Your task to perform on an android device: turn notification dots off Image 0: 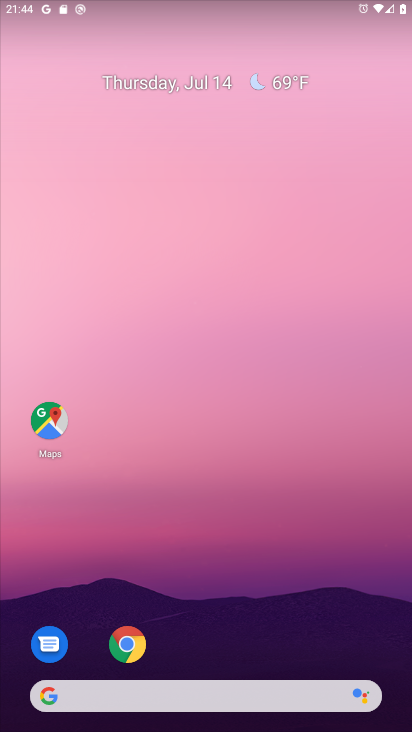
Step 0: drag from (188, 646) to (125, 110)
Your task to perform on an android device: turn notification dots off Image 1: 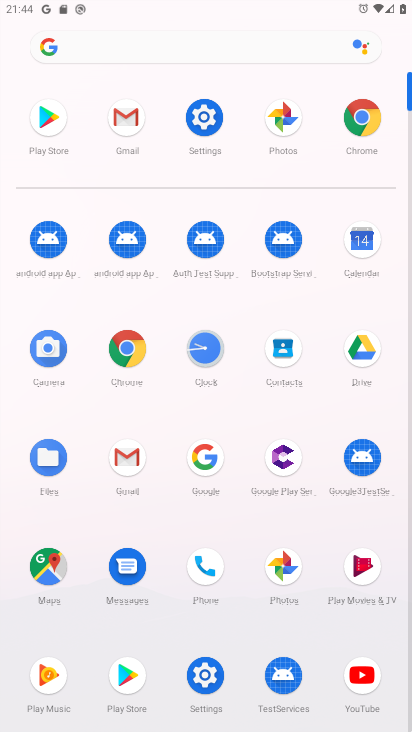
Step 1: click (205, 133)
Your task to perform on an android device: turn notification dots off Image 2: 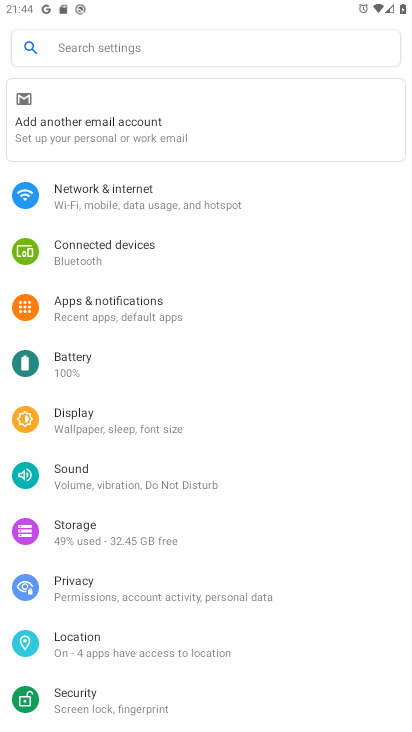
Step 2: click (166, 312)
Your task to perform on an android device: turn notification dots off Image 3: 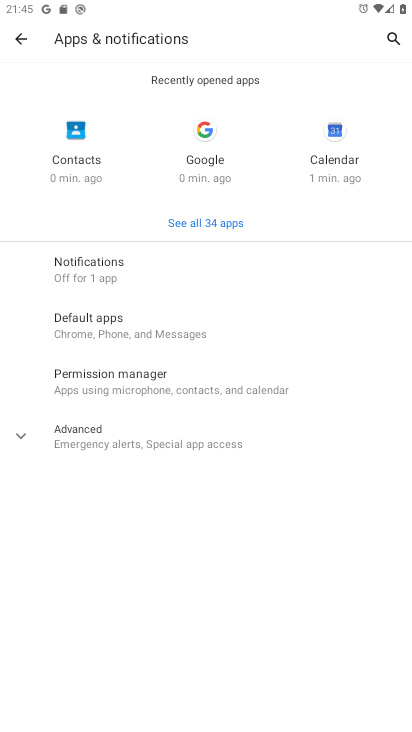
Step 3: click (198, 291)
Your task to perform on an android device: turn notification dots off Image 4: 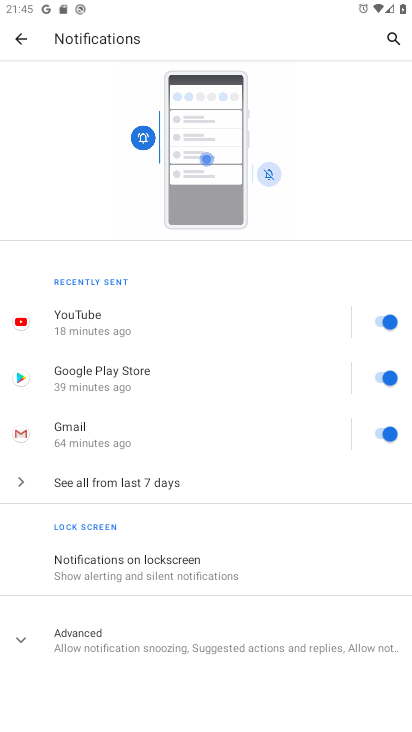
Step 4: click (127, 633)
Your task to perform on an android device: turn notification dots off Image 5: 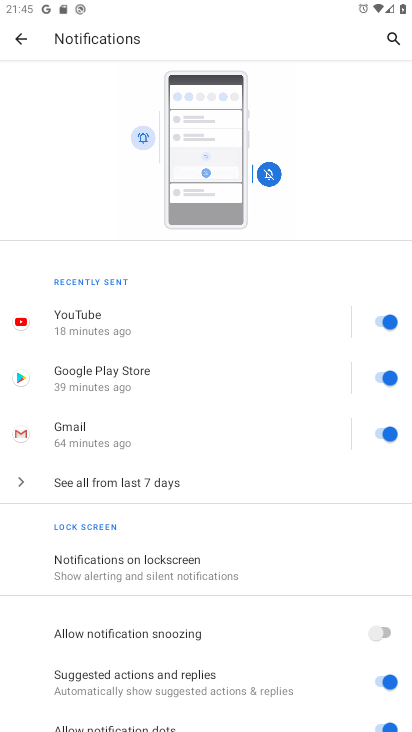
Step 5: drag from (197, 695) to (176, 261)
Your task to perform on an android device: turn notification dots off Image 6: 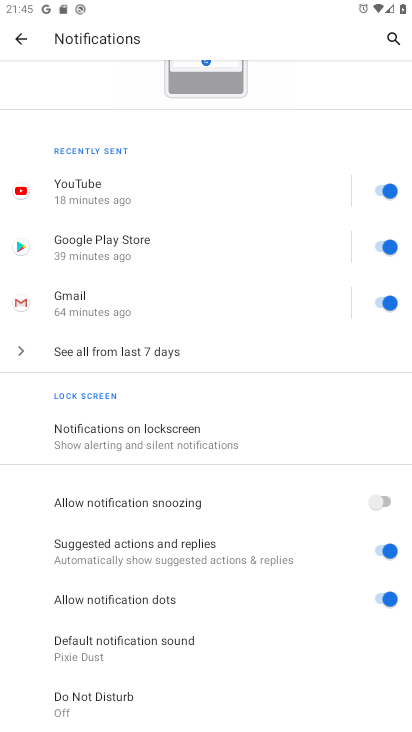
Step 6: click (386, 596)
Your task to perform on an android device: turn notification dots off Image 7: 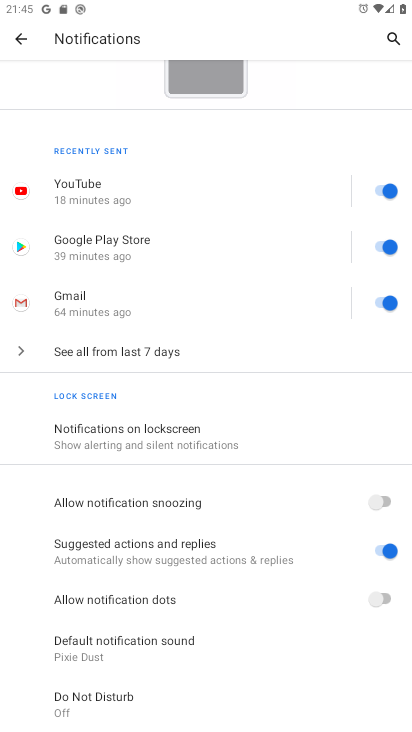
Step 7: task complete